Your task to perform on an android device: search for starred emails in the gmail app Image 0: 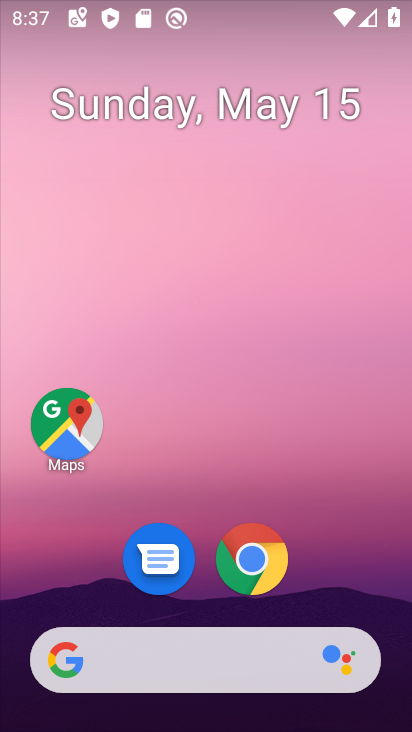
Step 0: drag from (365, 582) to (374, 243)
Your task to perform on an android device: search for starred emails in the gmail app Image 1: 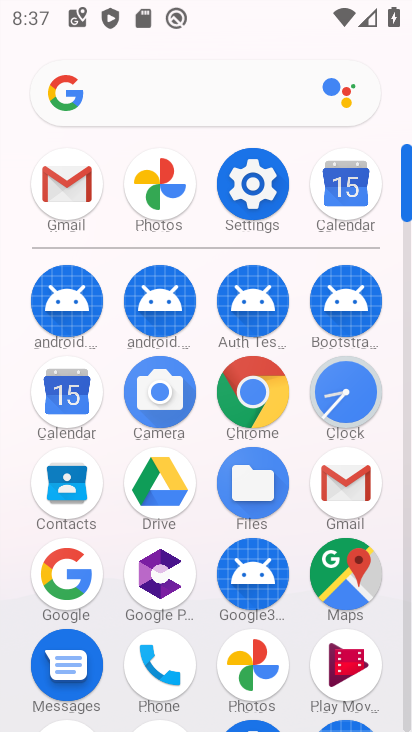
Step 1: click (61, 179)
Your task to perform on an android device: search for starred emails in the gmail app Image 2: 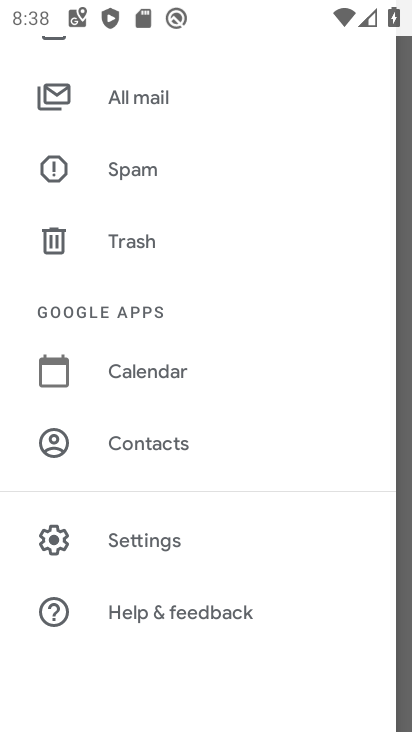
Step 2: drag from (161, 142) to (161, 408)
Your task to perform on an android device: search for starred emails in the gmail app Image 3: 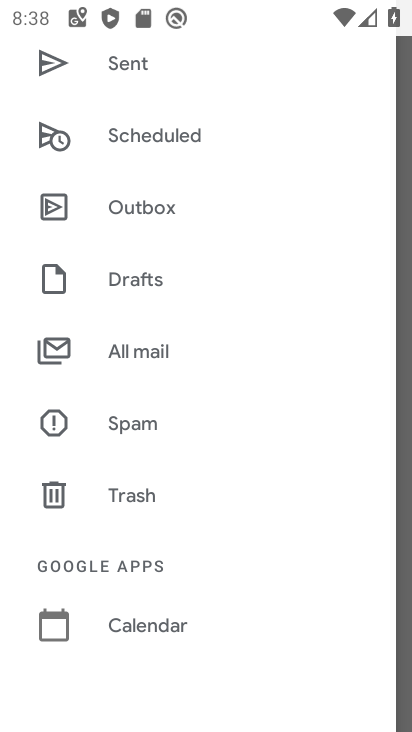
Step 3: drag from (191, 262) to (191, 408)
Your task to perform on an android device: search for starred emails in the gmail app Image 4: 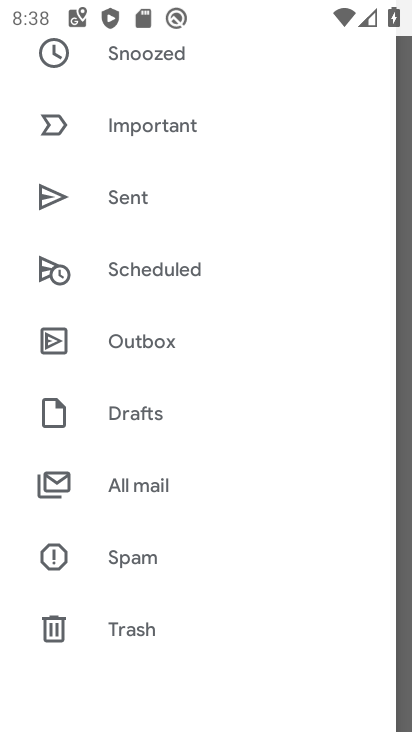
Step 4: drag from (197, 197) to (185, 385)
Your task to perform on an android device: search for starred emails in the gmail app Image 5: 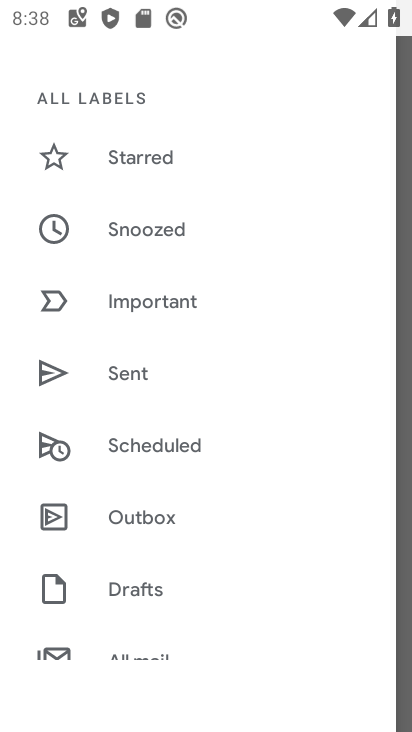
Step 5: click (166, 154)
Your task to perform on an android device: search for starred emails in the gmail app Image 6: 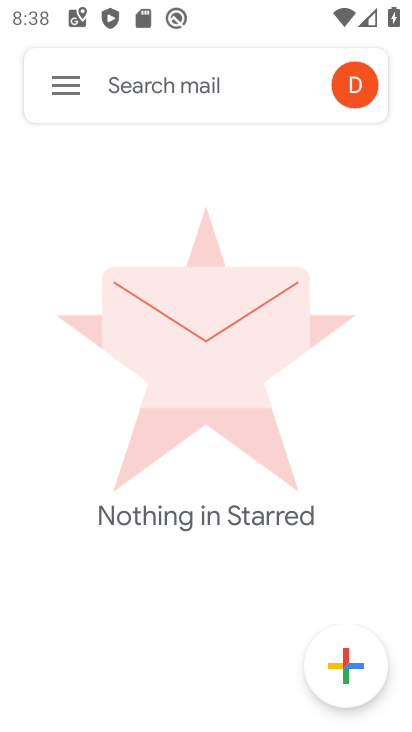
Step 6: task complete